Your task to perform on an android device: Add "macbook pro" to the cart on walmart.com Image 0: 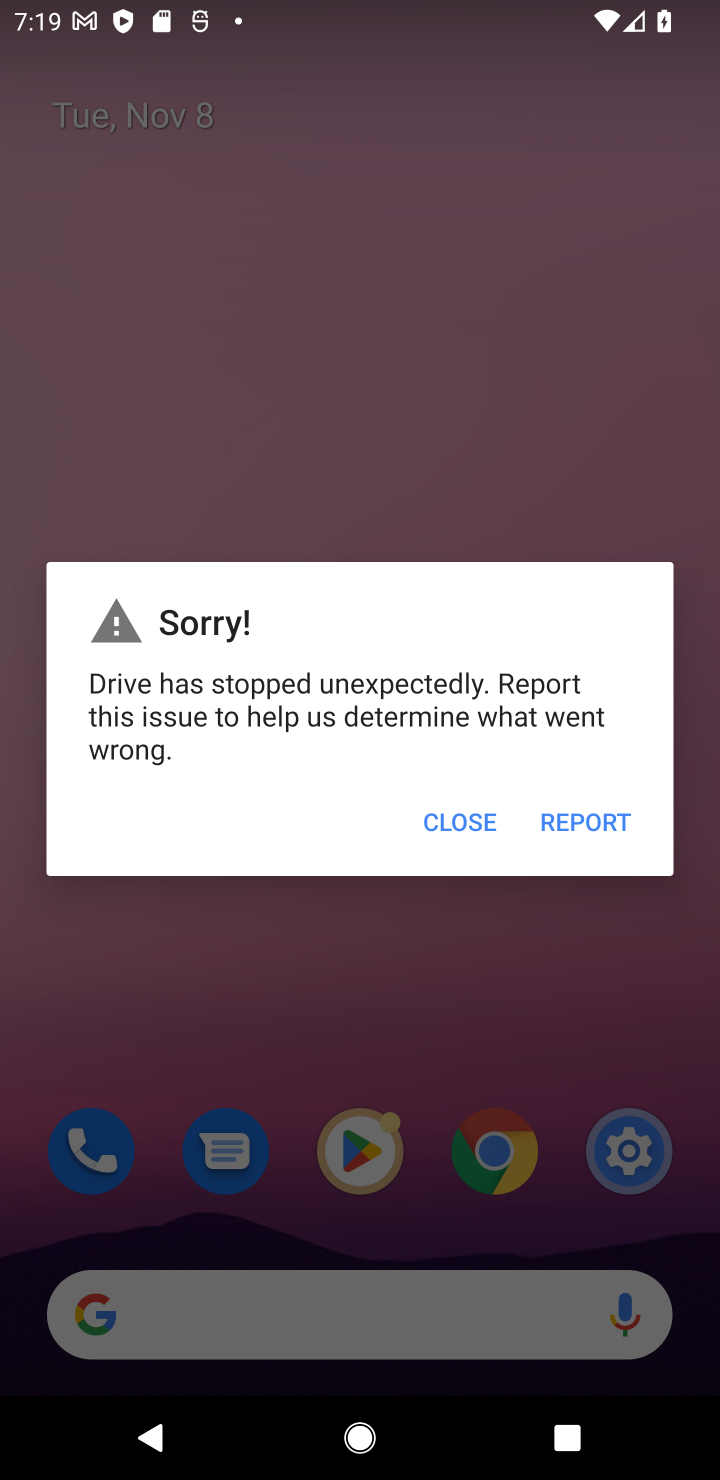
Step 0: click (465, 825)
Your task to perform on an android device: Add "macbook pro" to the cart on walmart.com Image 1: 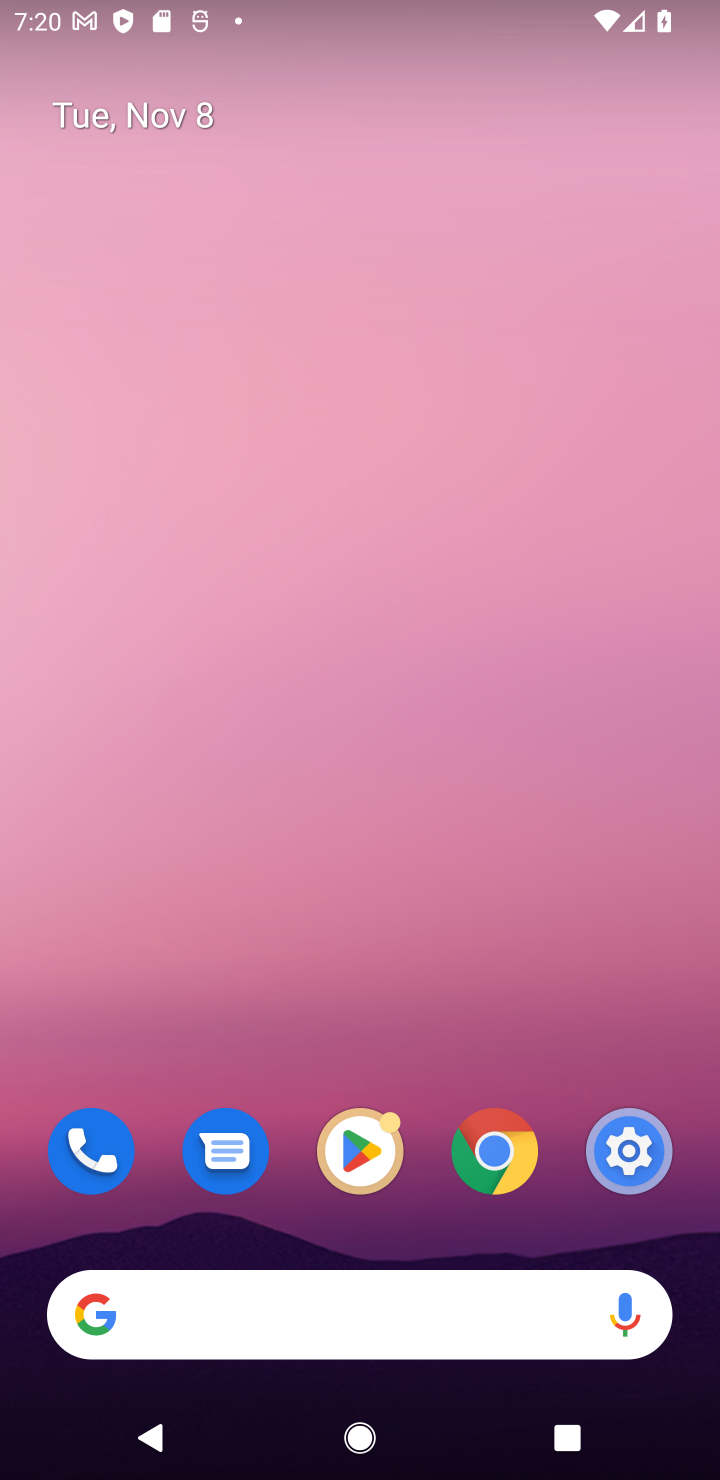
Step 1: click (307, 1338)
Your task to perform on an android device: Add "macbook pro" to the cart on walmart.com Image 2: 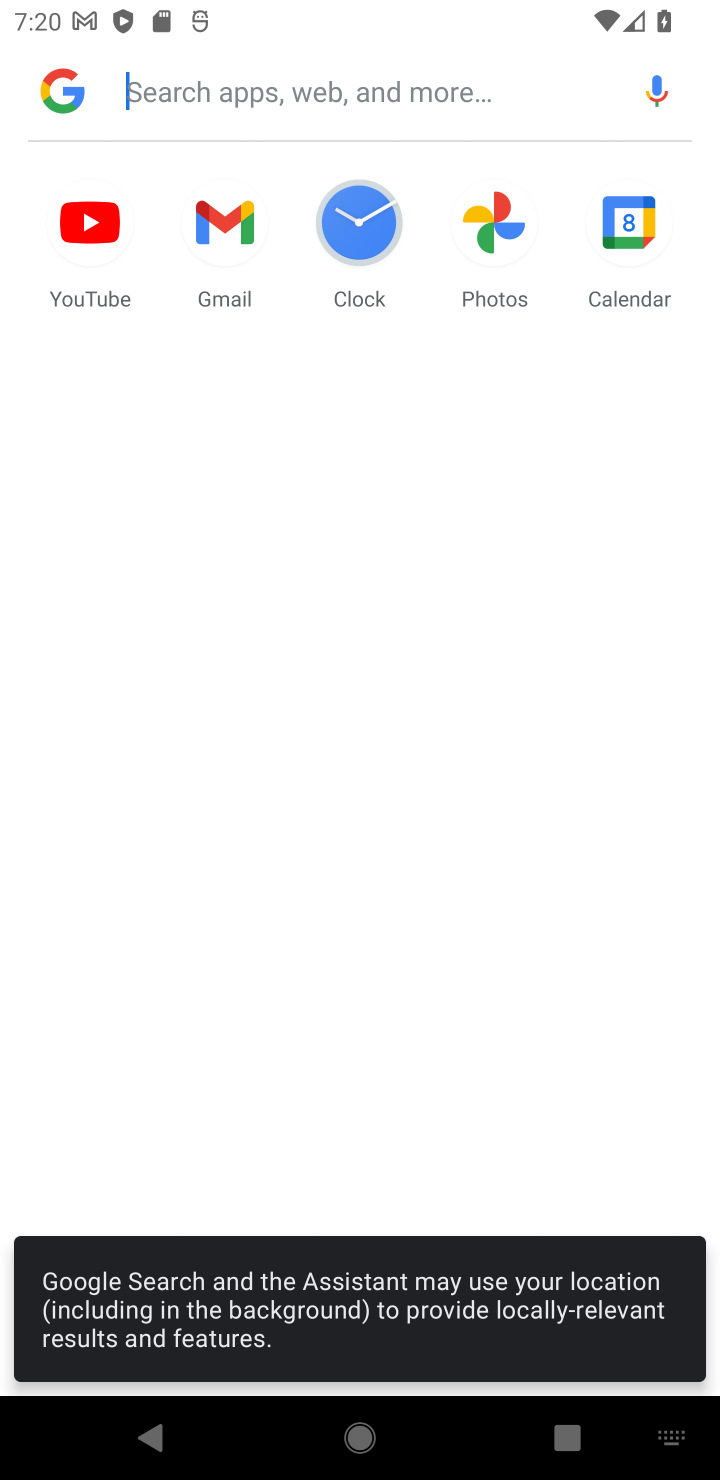
Step 2: type "walmart"
Your task to perform on an android device: Add "macbook pro" to the cart on walmart.com Image 3: 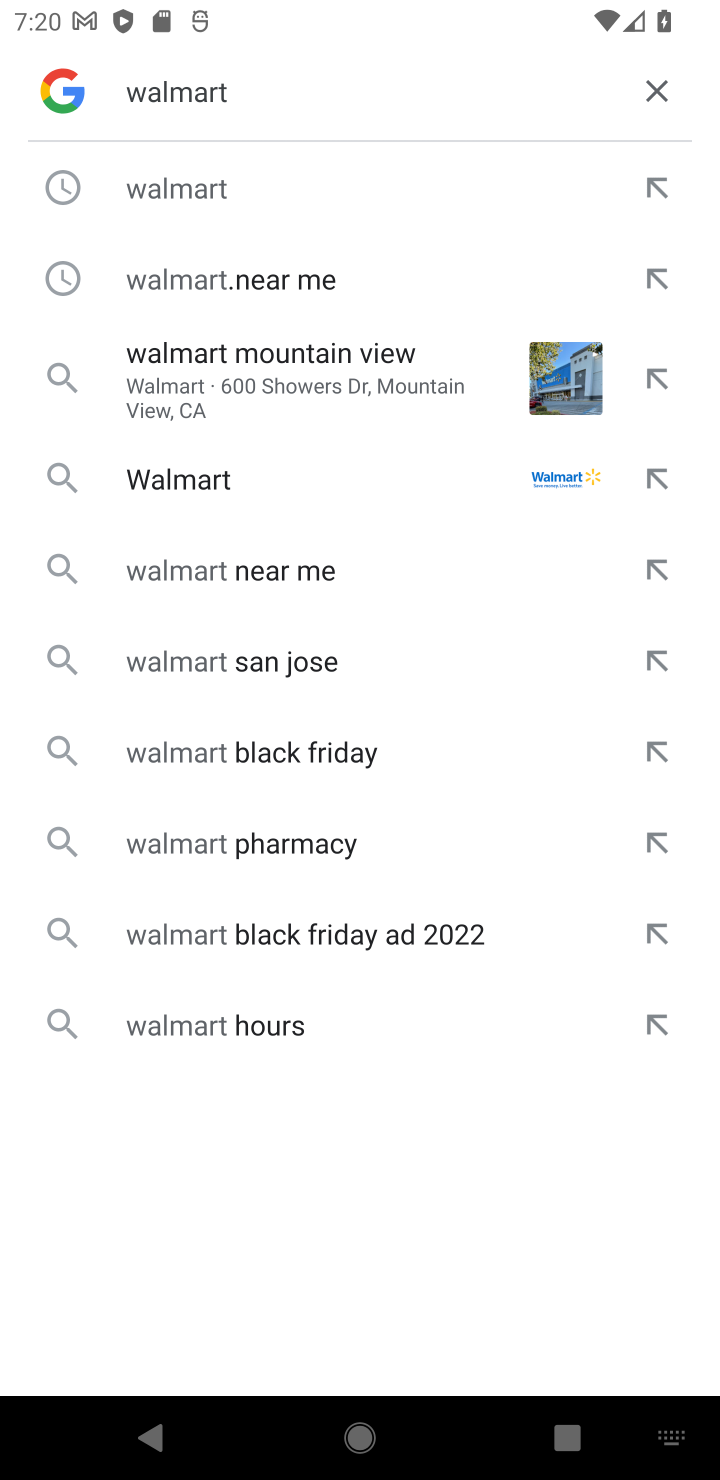
Step 3: click (249, 191)
Your task to perform on an android device: Add "macbook pro" to the cart on walmart.com Image 4: 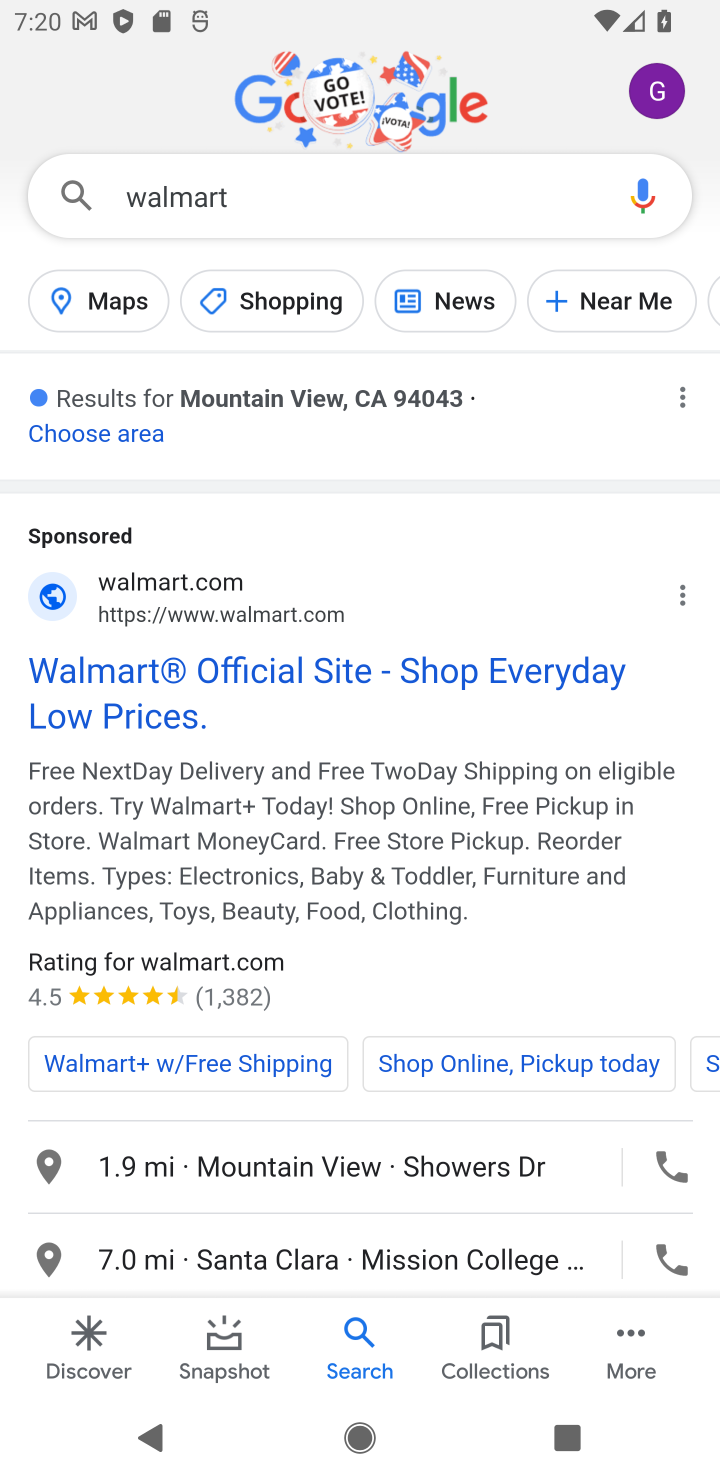
Step 4: click (173, 680)
Your task to perform on an android device: Add "macbook pro" to the cart on walmart.com Image 5: 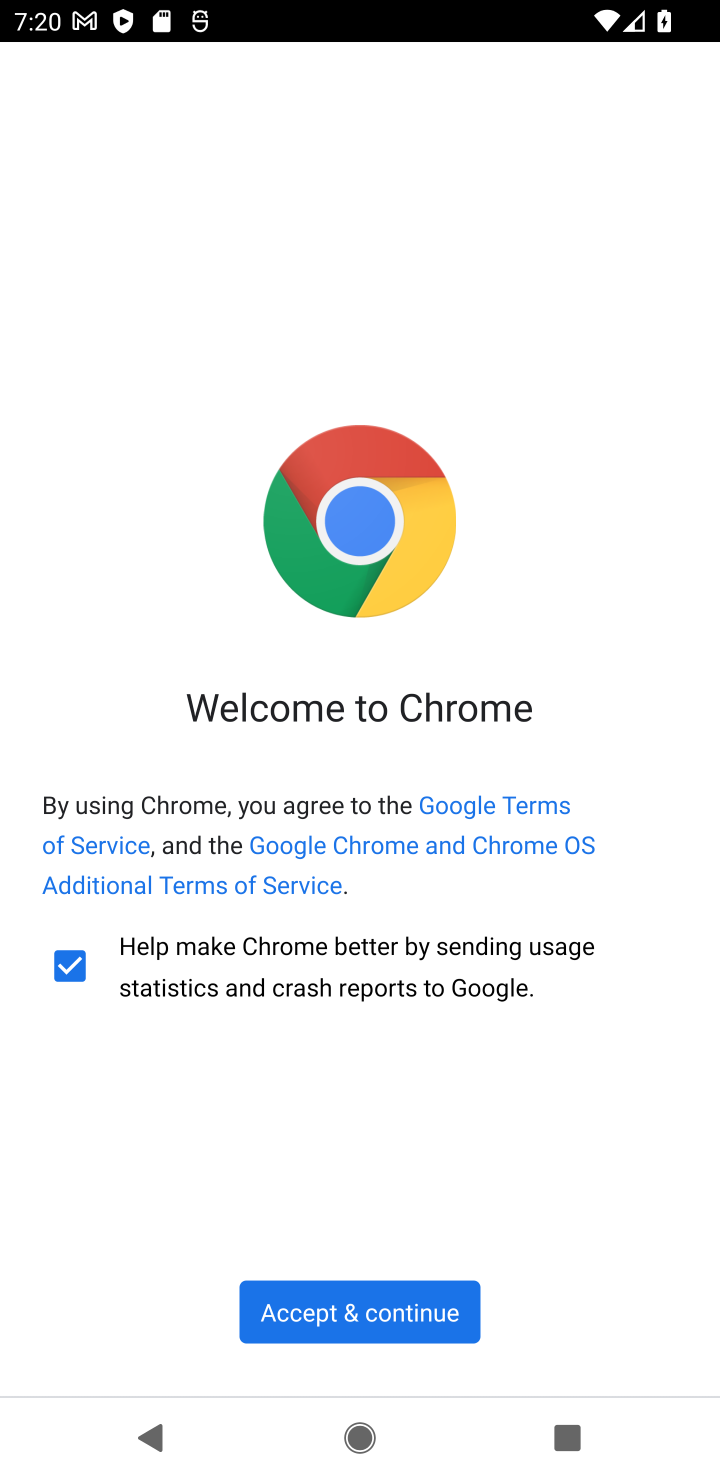
Step 5: click (400, 1287)
Your task to perform on an android device: Add "macbook pro" to the cart on walmart.com Image 6: 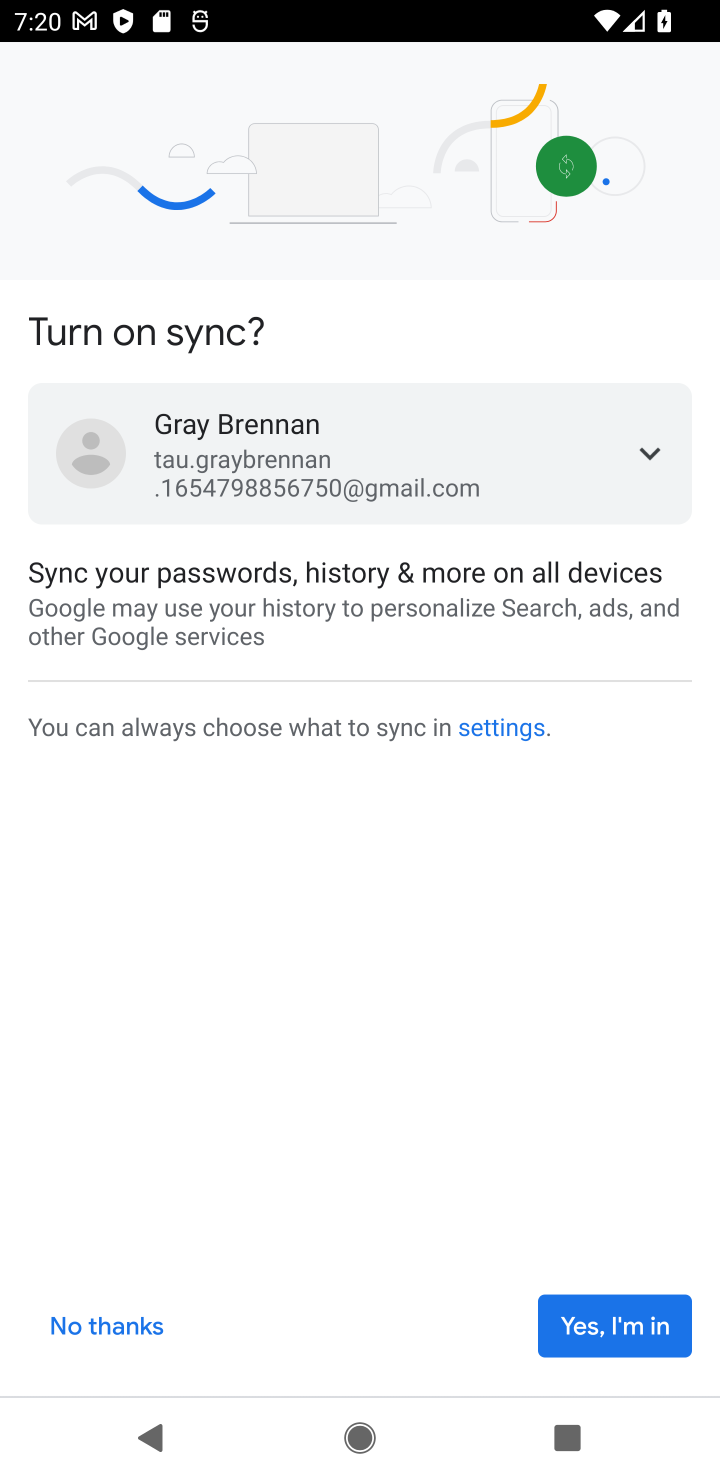
Step 6: click (570, 1347)
Your task to perform on an android device: Add "macbook pro" to the cart on walmart.com Image 7: 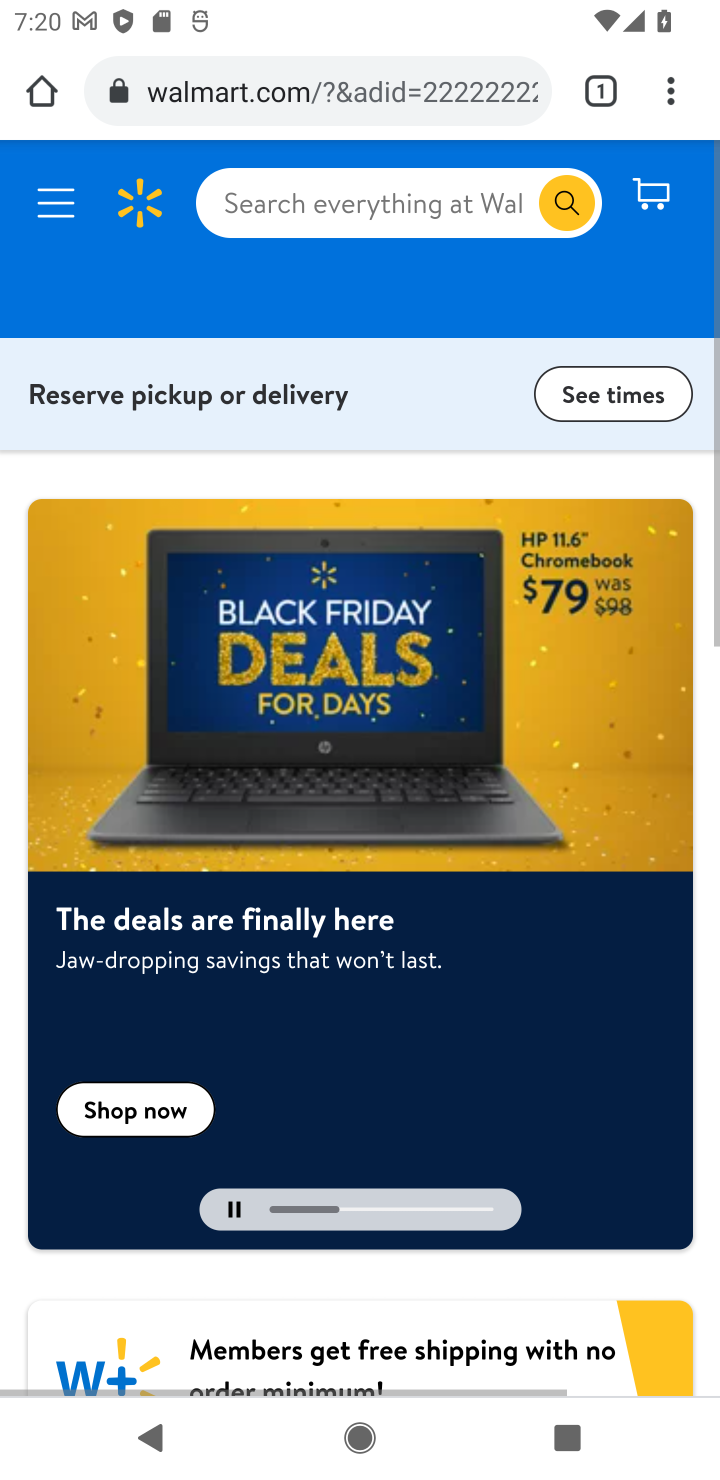
Step 7: click (381, 190)
Your task to perform on an android device: Add "macbook pro" to the cart on walmart.com Image 8: 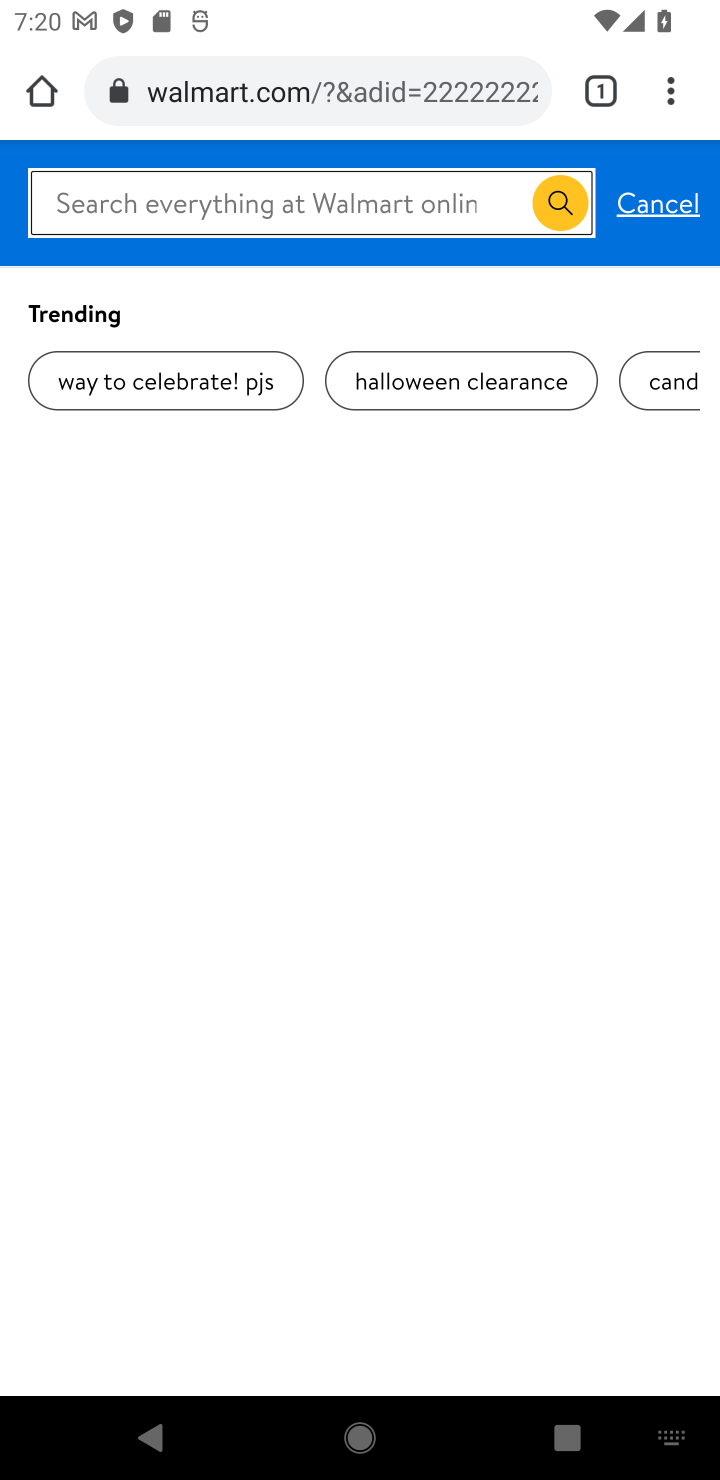
Step 8: type "macbook pro"
Your task to perform on an android device: Add "macbook pro" to the cart on walmart.com Image 9: 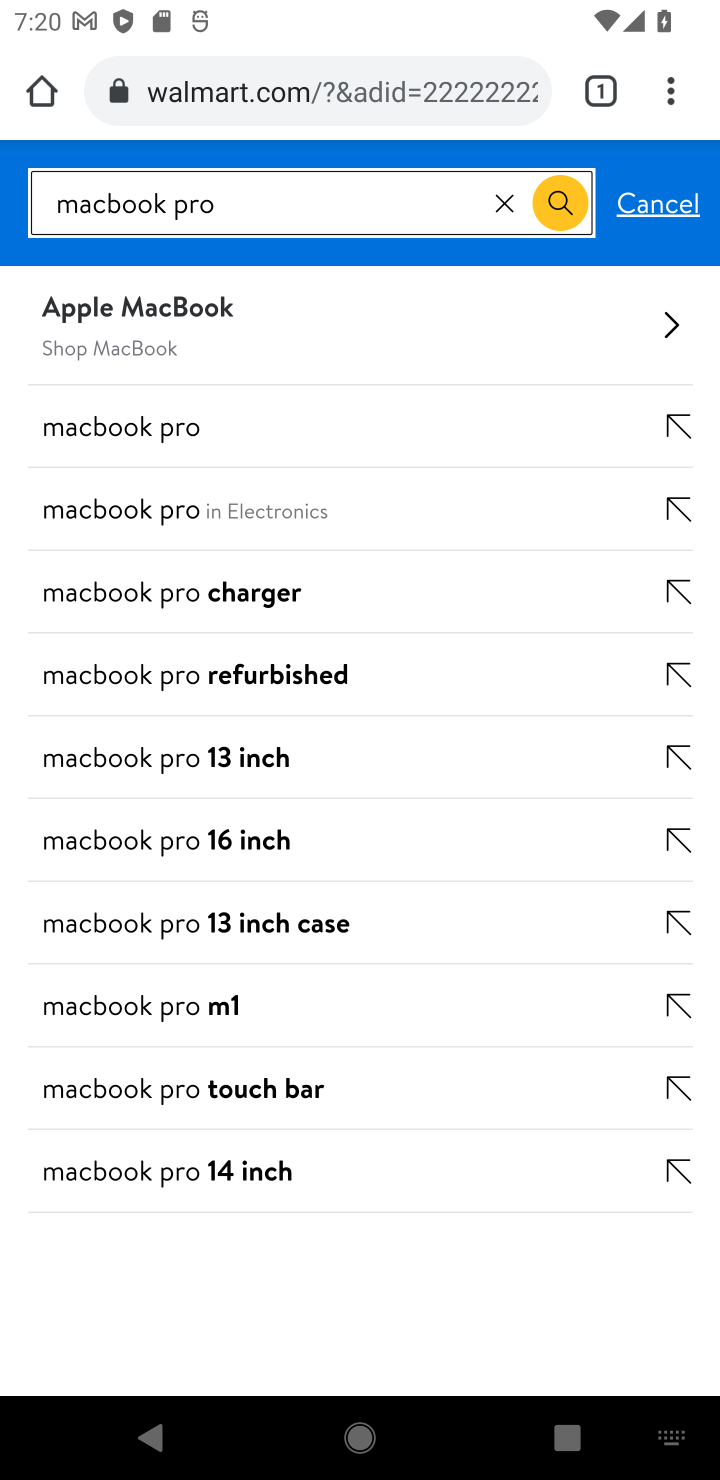
Step 9: click (292, 425)
Your task to perform on an android device: Add "macbook pro" to the cart on walmart.com Image 10: 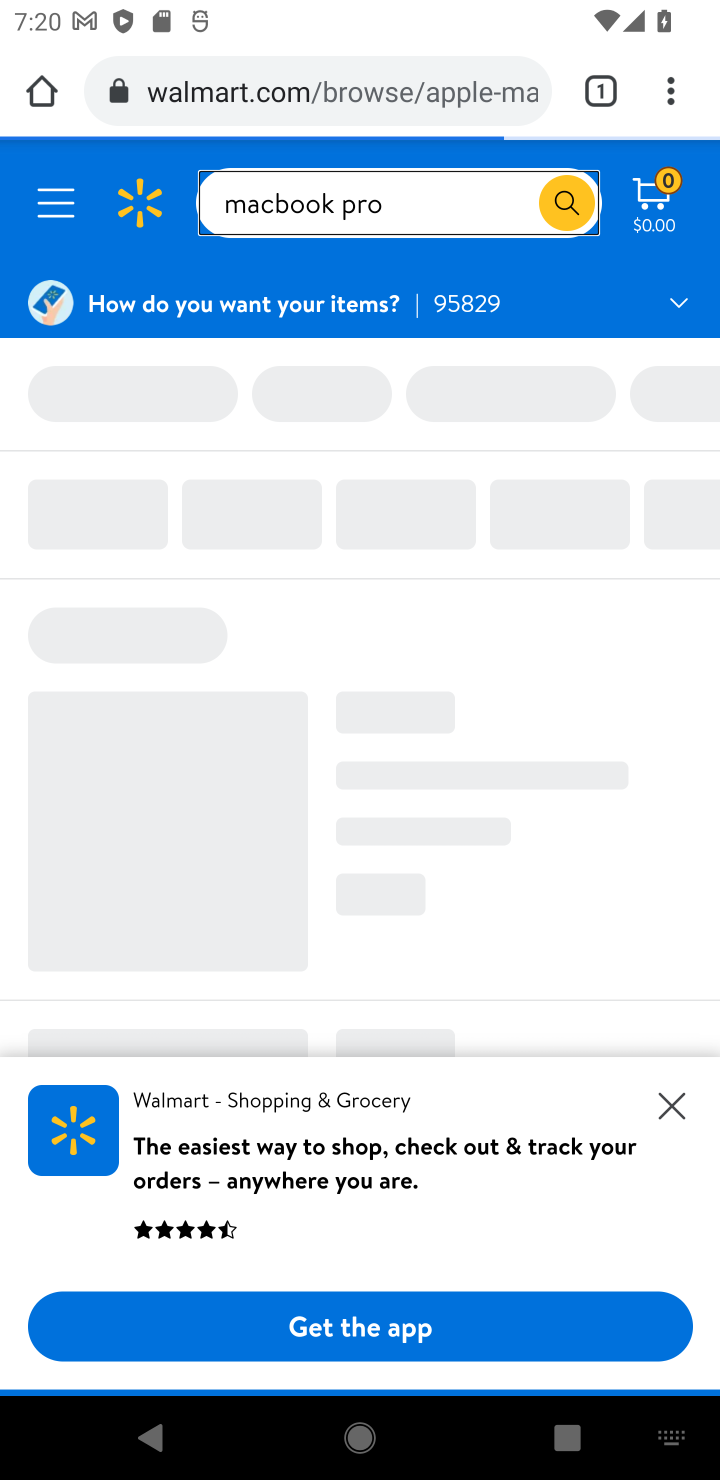
Step 10: task complete